Your task to perform on an android device: turn on bluetooth scan Image 0: 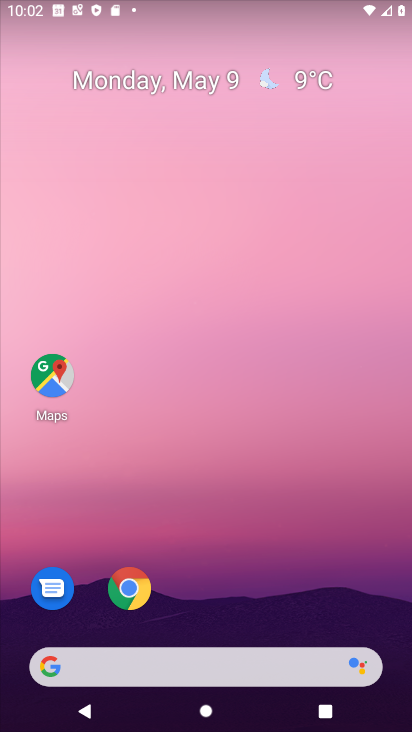
Step 0: drag from (175, 633) to (109, 19)
Your task to perform on an android device: turn on bluetooth scan Image 1: 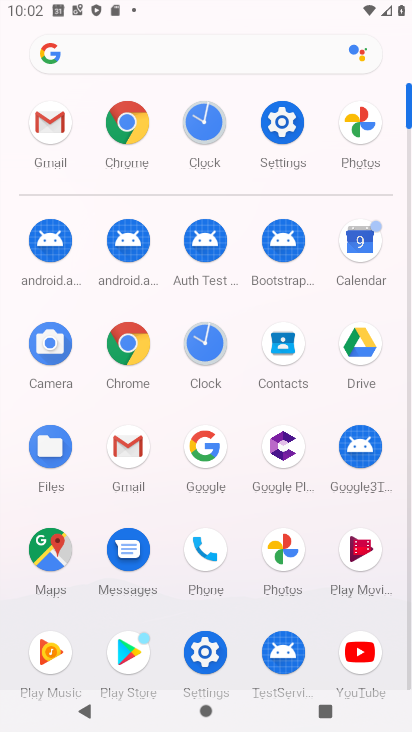
Step 1: click (286, 126)
Your task to perform on an android device: turn on bluetooth scan Image 2: 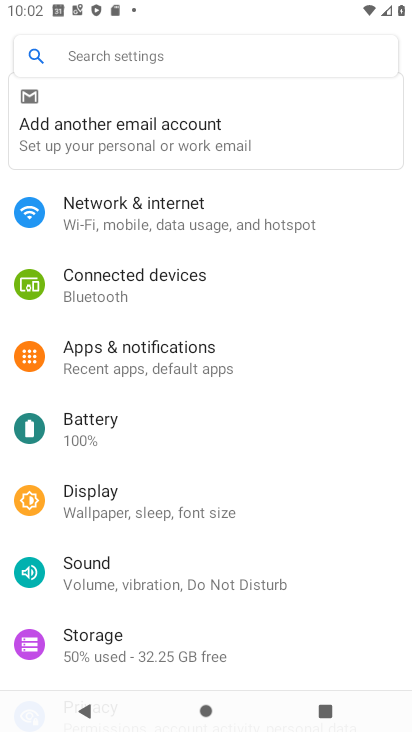
Step 2: drag from (166, 584) to (159, 167)
Your task to perform on an android device: turn on bluetooth scan Image 3: 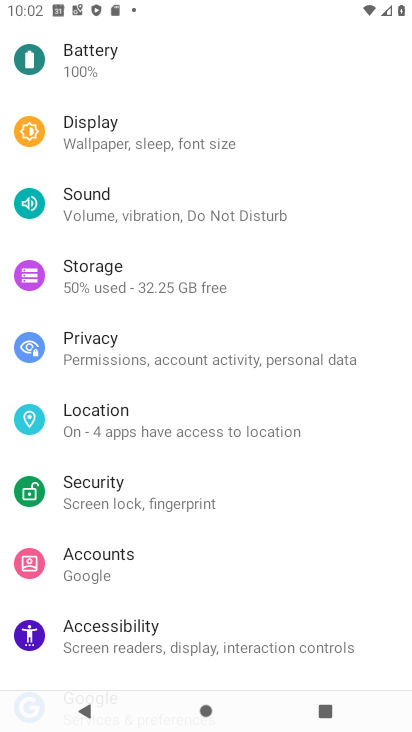
Step 3: click (118, 413)
Your task to perform on an android device: turn on bluetooth scan Image 4: 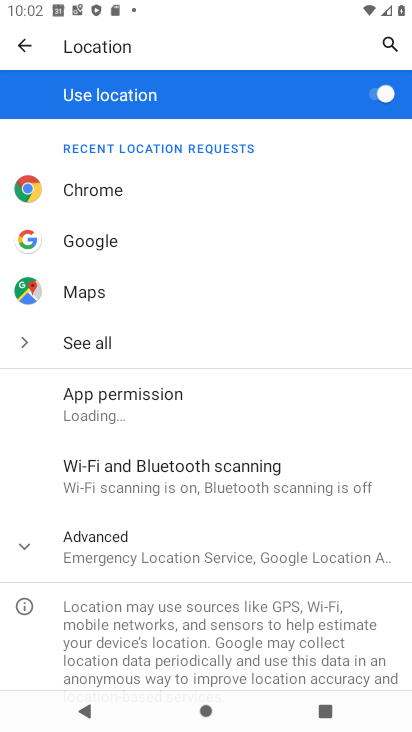
Step 4: click (164, 474)
Your task to perform on an android device: turn on bluetooth scan Image 5: 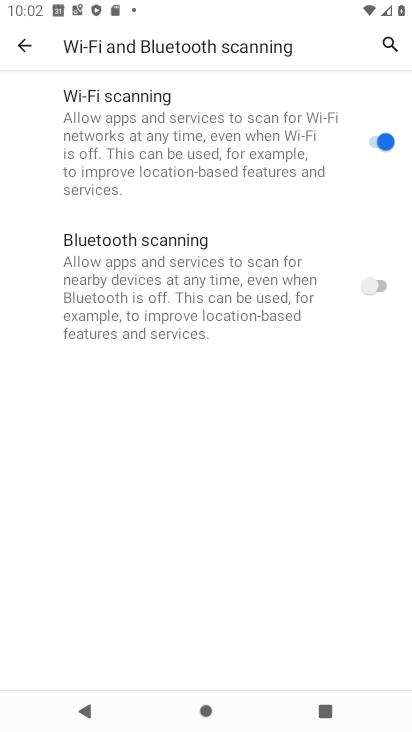
Step 5: click (380, 288)
Your task to perform on an android device: turn on bluetooth scan Image 6: 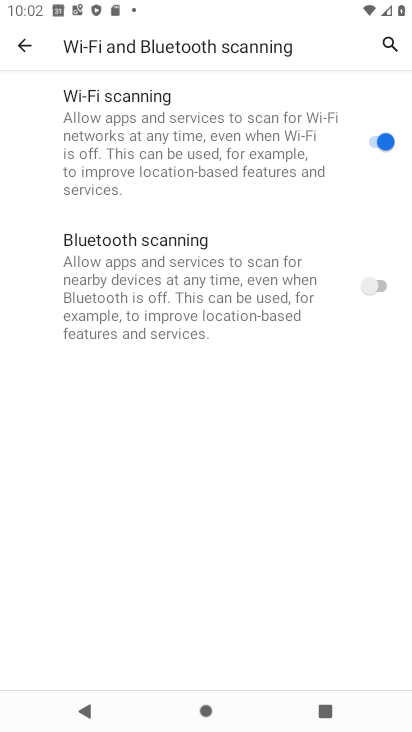
Step 6: click (381, 289)
Your task to perform on an android device: turn on bluetooth scan Image 7: 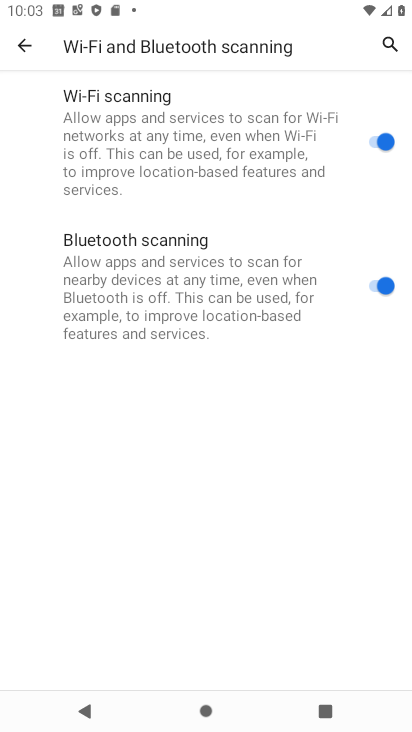
Step 7: task complete